Your task to perform on an android device: check google app version Image 0: 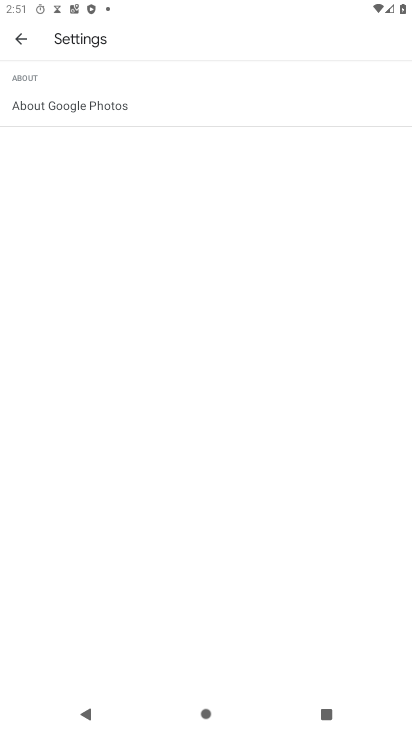
Step 0: press home button
Your task to perform on an android device: check google app version Image 1: 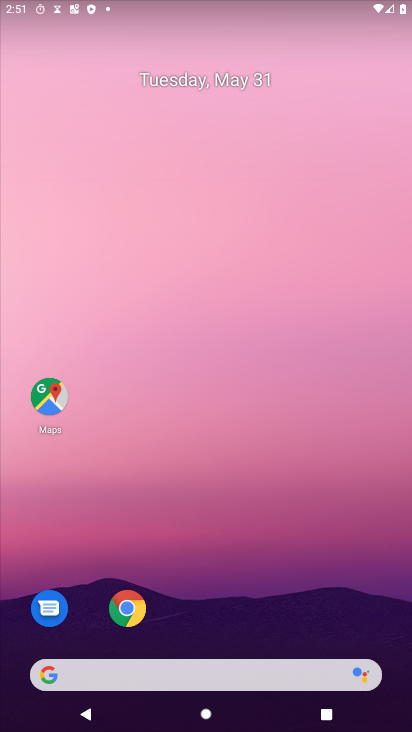
Step 1: click (74, 669)
Your task to perform on an android device: check google app version Image 2: 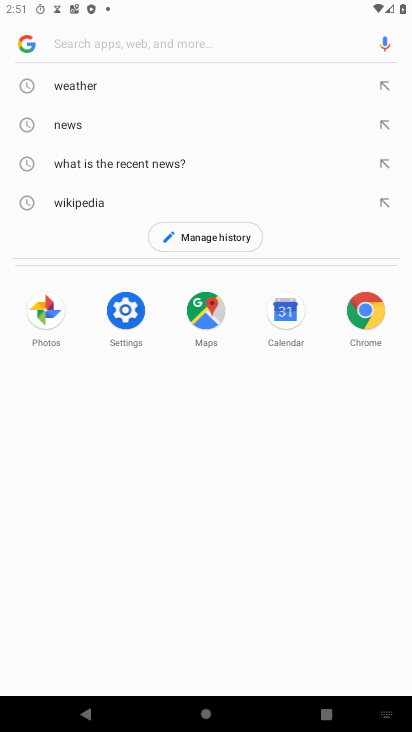
Step 2: click (34, 43)
Your task to perform on an android device: check google app version Image 3: 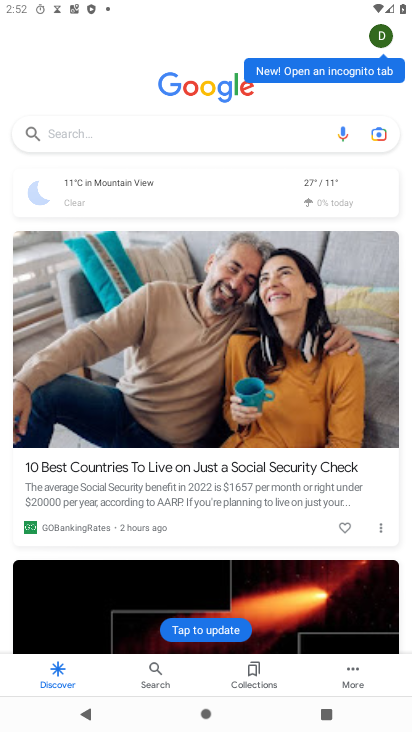
Step 3: click (369, 676)
Your task to perform on an android device: check google app version Image 4: 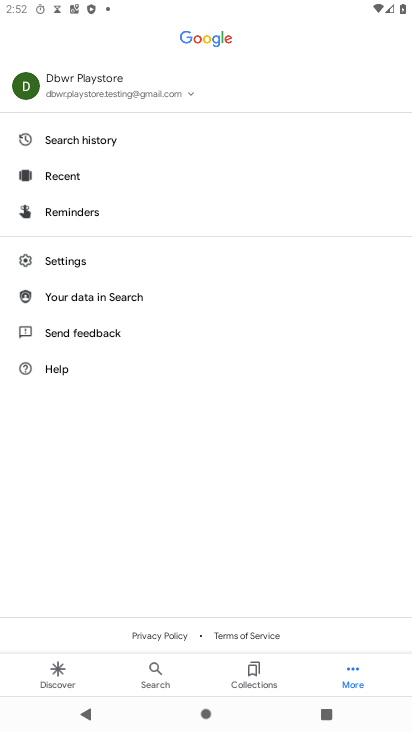
Step 4: click (84, 258)
Your task to perform on an android device: check google app version Image 5: 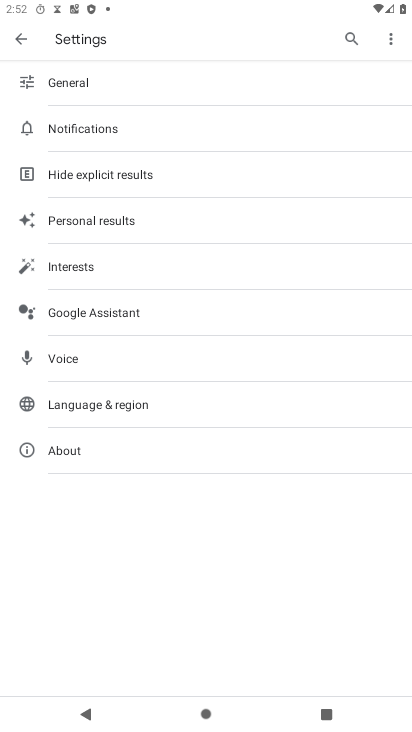
Step 5: click (65, 454)
Your task to perform on an android device: check google app version Image 6: 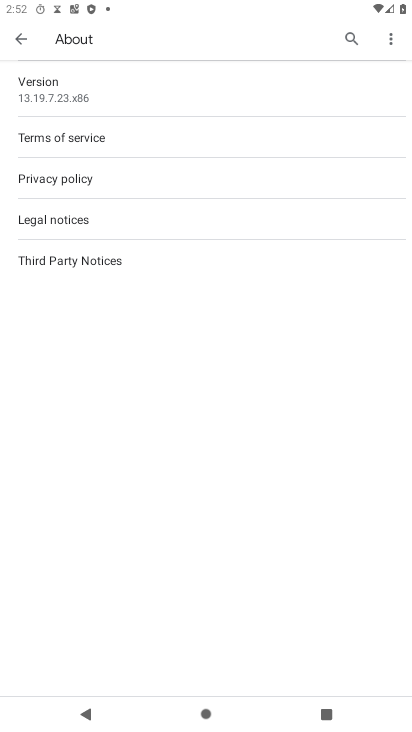
Step 6: task complete